Your task to perform on an android device: Open Reddit.com Image 0: 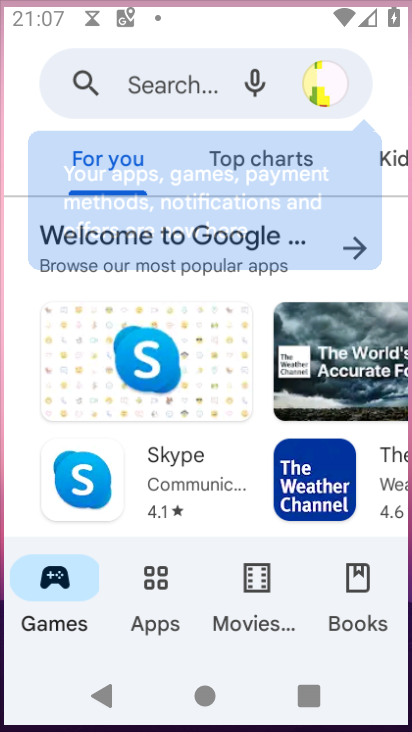
Step 0: press home button
Your task to perform on an android device: Open Reddit.com Image 1: 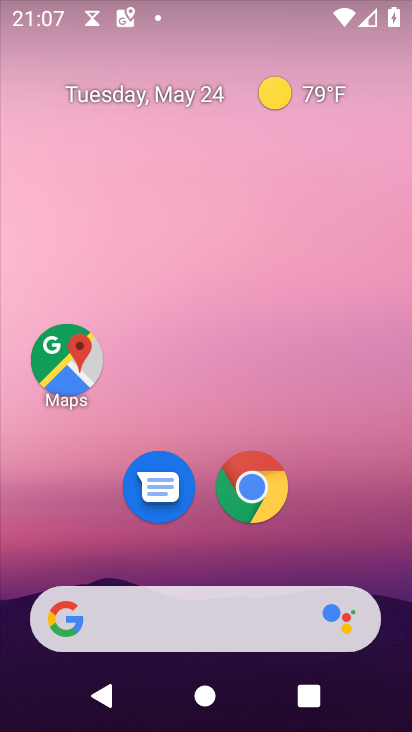
Step 1: drag from (359, 531) to (355, 100)
Your task to perform on an android device: Open Reddit.com Image 2: 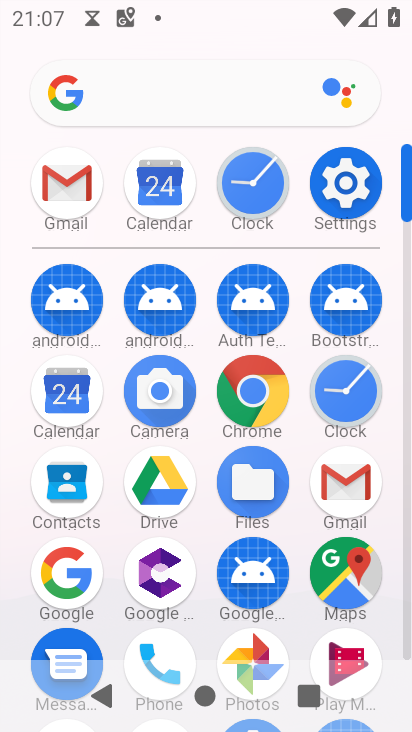
Step 2: click (271, 407)
Your task to perform on an android device: Open Reddit.com Image 3: 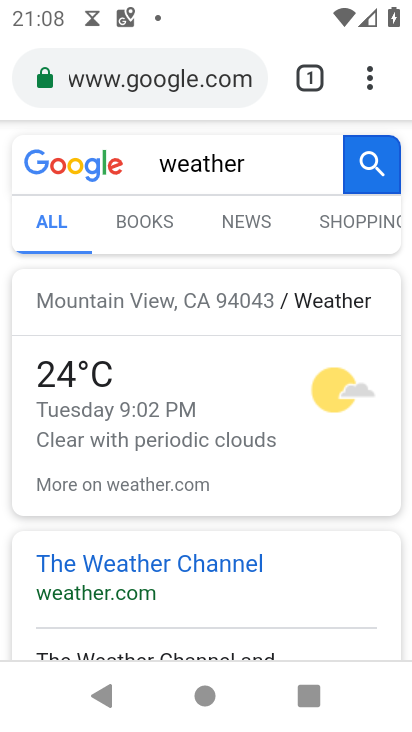
Step 3: click (146, 94)
Your task to perform on an android device: Open Reddit.com Image 4: 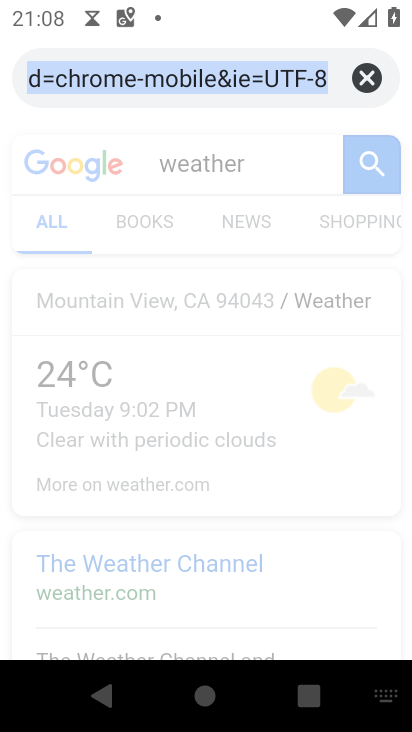
Step 4: click (360, 79)
Your task to perform on an android device: Open Reddit.com Image 5: 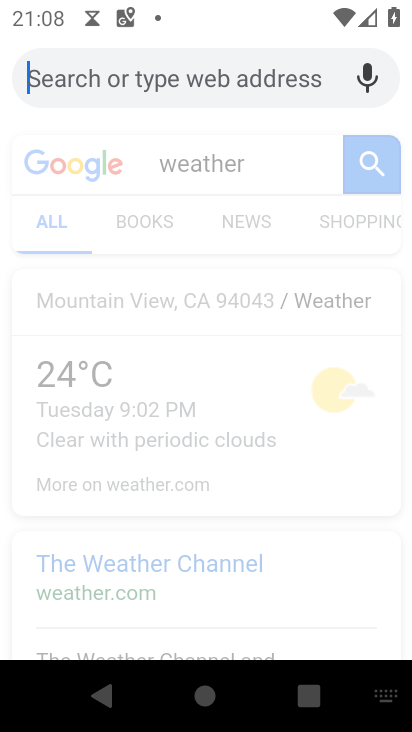
Step 5: type "Reddit.com"
Your task to perform on an android device: Open Reddit.com Image 6: 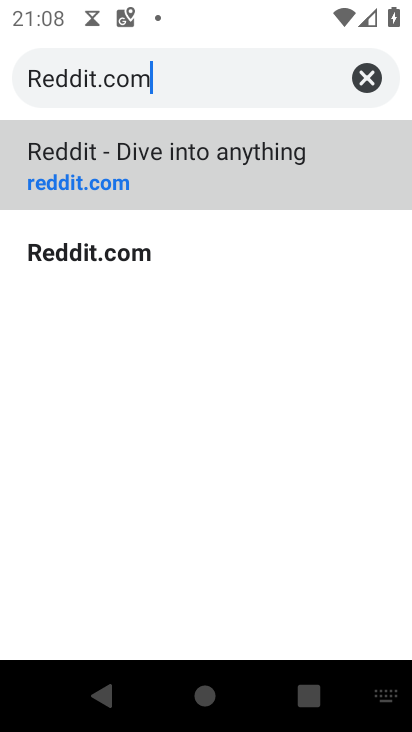
Step 6: type ""
Your task to perform on an android device: Open Reddit.com Image 7: 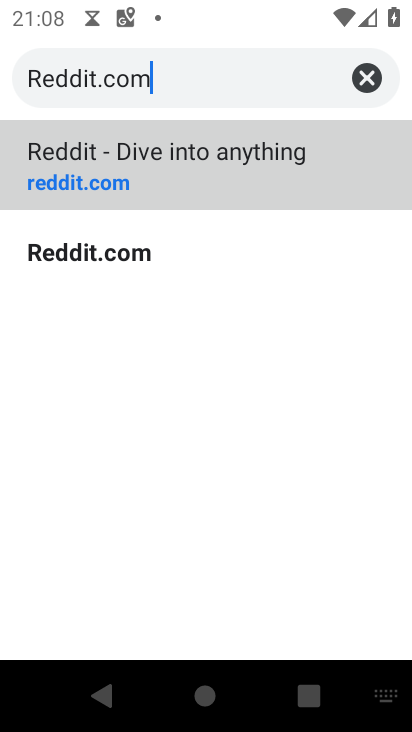
Step 7: click (123, 186)
Your task to perform on an android device: Open Reddit.com Image 8: 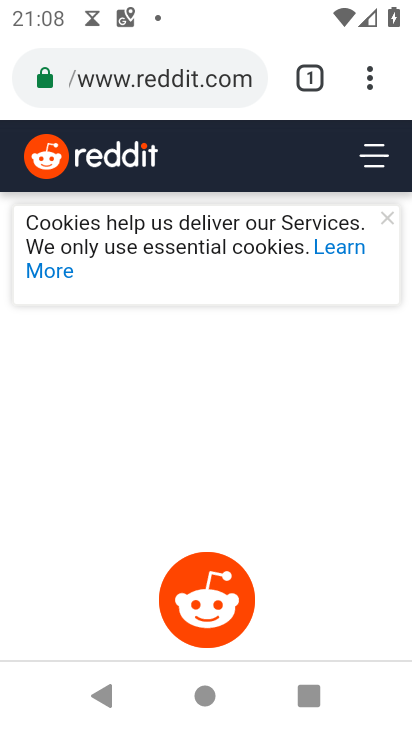
Step 8: task complete